Your task to perform on an android device: Open Chrome and go to settings Image 0: 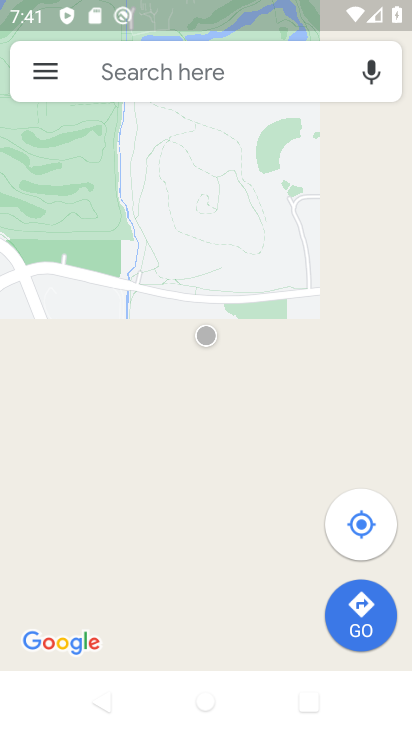
Step 0: press home button
Your task to perform on an android device: Open Chrome and go to settings Image 1: 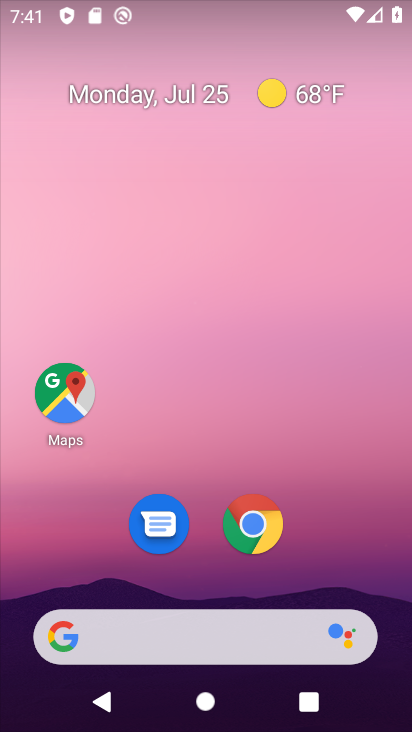
Step 1: click (254, 531)
Your task to perform on an android device: Open Chrome and go to settings Image 2: 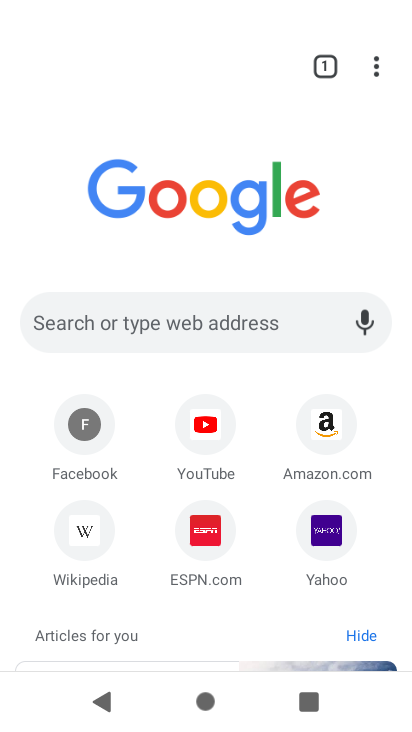
Step 2: click (378, 69)
Your task to perform on an android device: Open Chrome and go to settings Image 3: 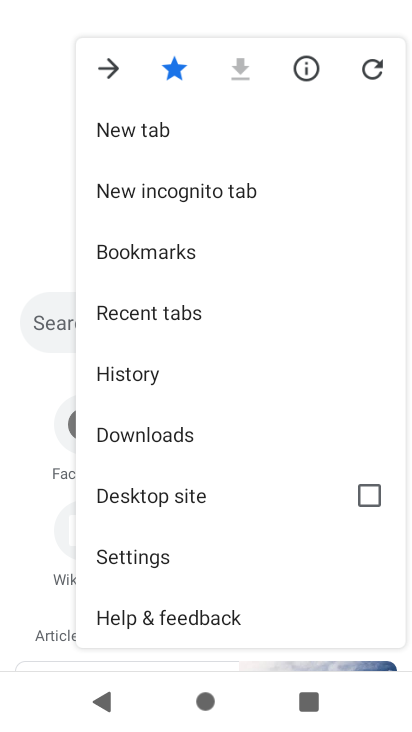
Step 3: click (159, 556)
Your task to perform on an android device: Open Chrome and go to settings Image 4: 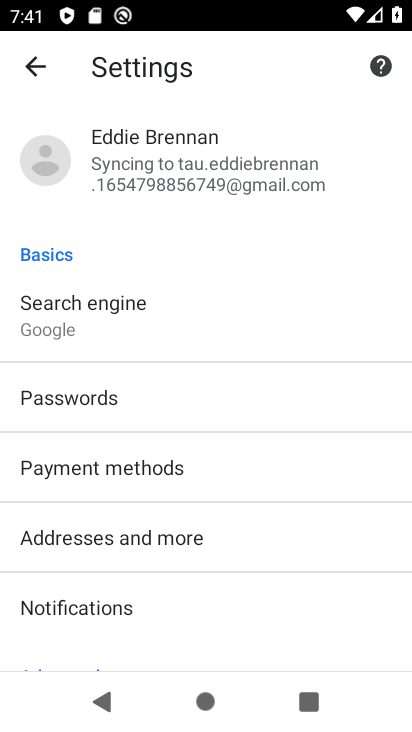
Step 4: task complete